Your task to perform on an android device: What's the weather going to be tomorrow? Image 0: 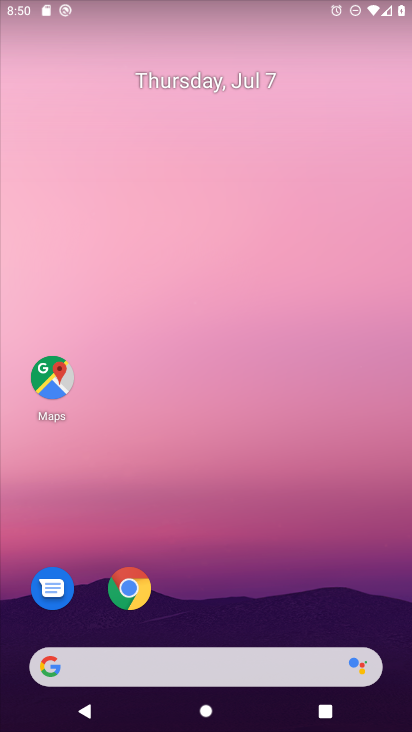
Step 0: drag from (246, 633) to (217, 282)
Your task to perform on an android device: What's the weather going to be tomorrow? Image 1: 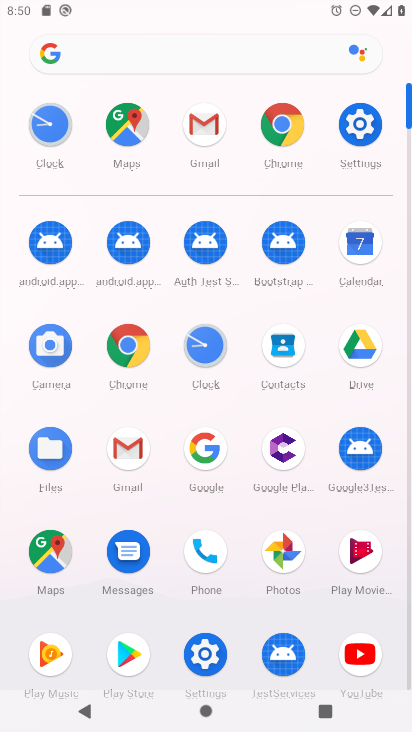
Step 1: click (278, 122)
Your task to perform on an android device: What's the weather going to be tomorrow? Image 2: 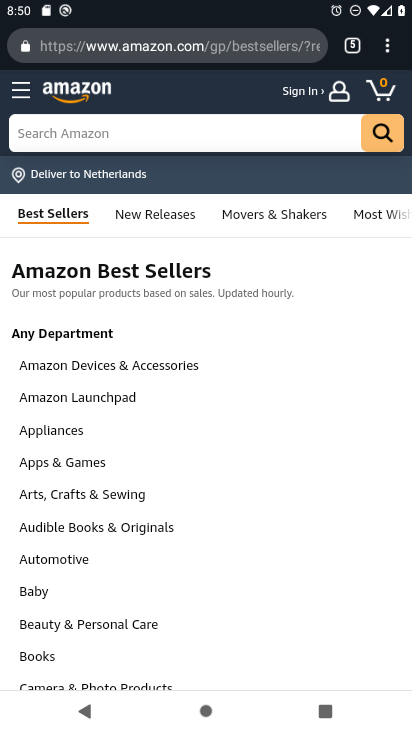
Step 2: click (133, 92)
Your task to perform on an android device: What's the weather going to be tomorrow? Image 3: 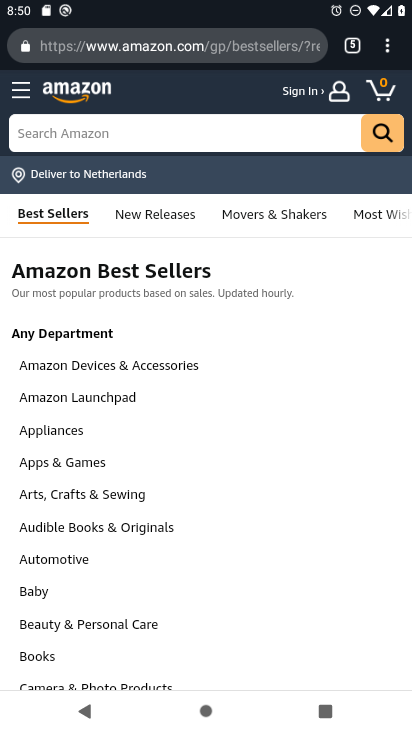
Step 3: click (379, 45)
Your task to perform on an android device: What's the weather going to be tomorrow? Image 4: 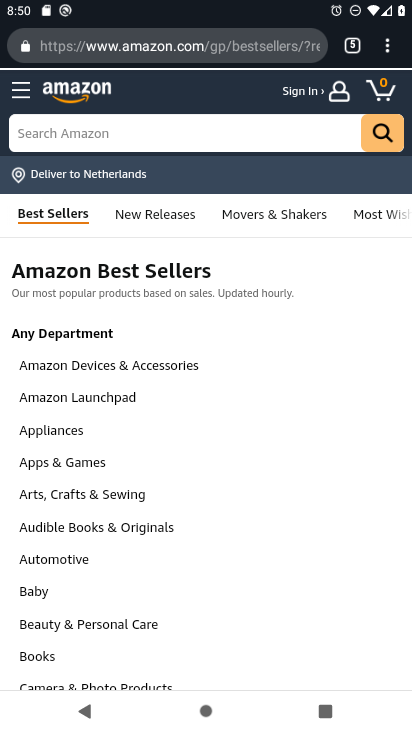
Step 4: click (378, 43)
Your task to perform on an android device: What's the weather going to be tomorrow? Image 5: 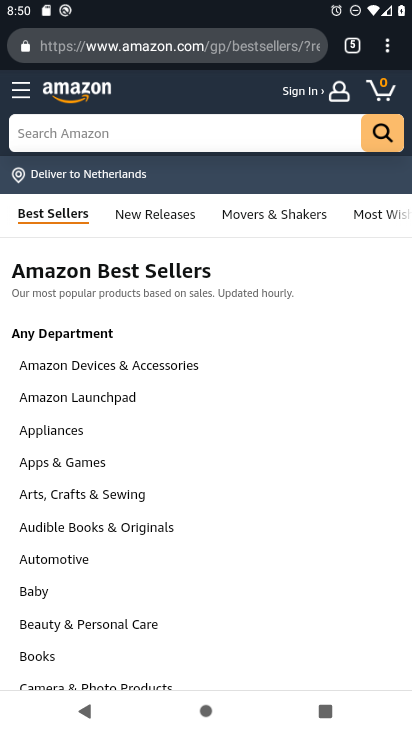
Step 5: click (393, 42)
Your task to perform on an android device: What's the weather going to be tomorrow? Image 6: 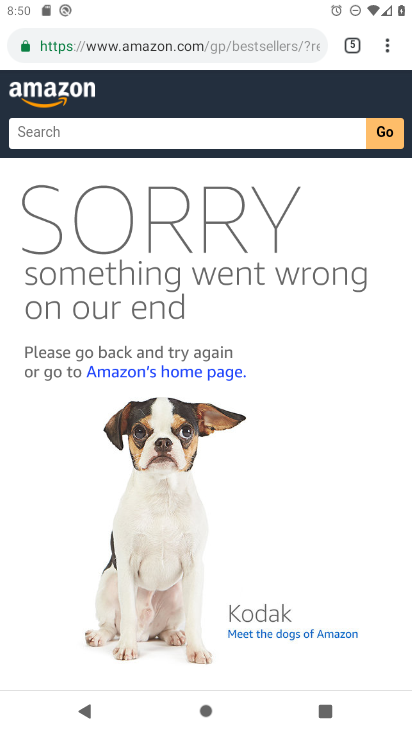
Step 6: click (392, 40)
Your task to perform on an android device: What's the weather going to be tomorrow? Image 7: 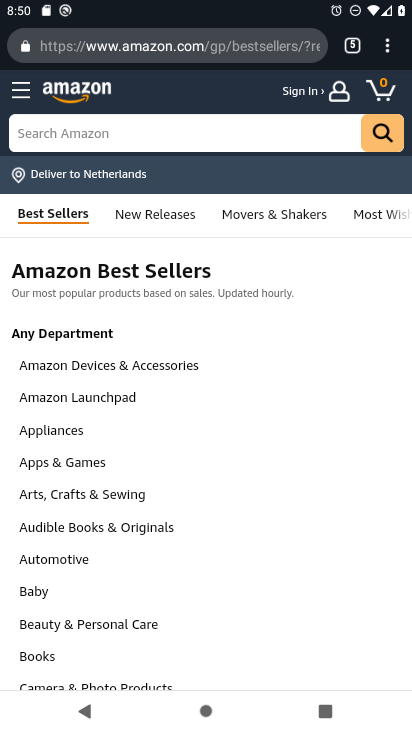
Step 7: click (383, 50)
Your task to perform on an android device: What's the weather going to be tomorrow? Image 8: 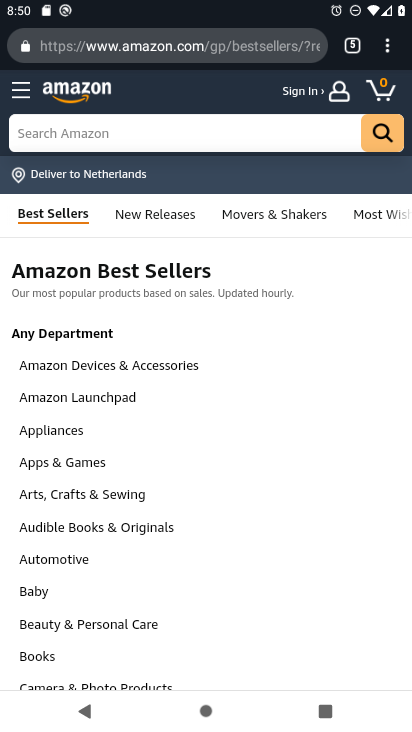
Step 8: click (386, 42)
Your task to perform on an android device: What's the weather going to be tomorrow? Image 9: 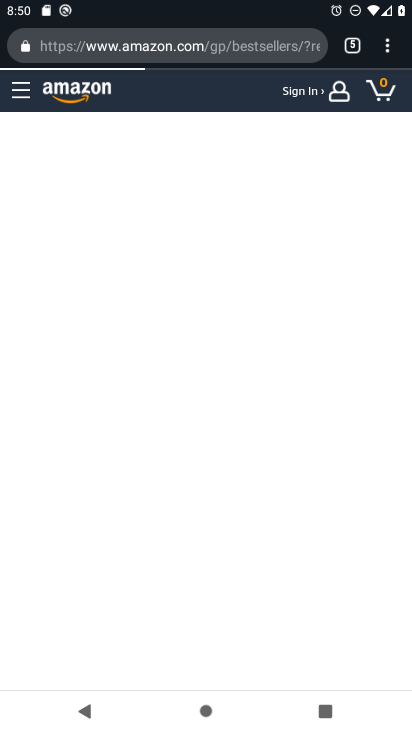
Step 9: click (388, 42)
Your task to perform on an android device: What's the weather going to be tomorrow? Image 10: 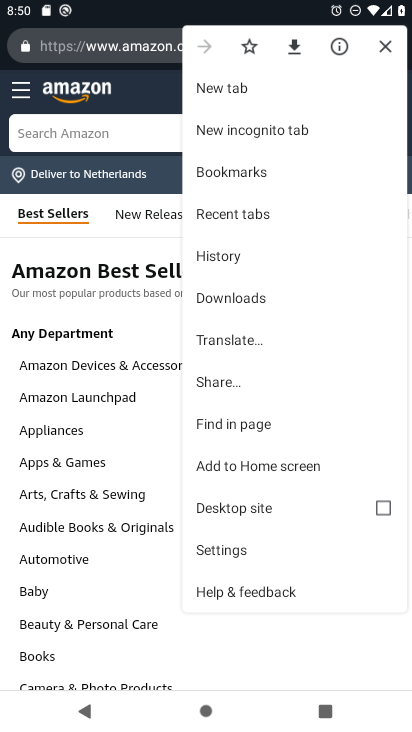
Step 10: click (257, 81)
Your task to perform on an android device: What's the weather going to be tomorrow? Image 11: 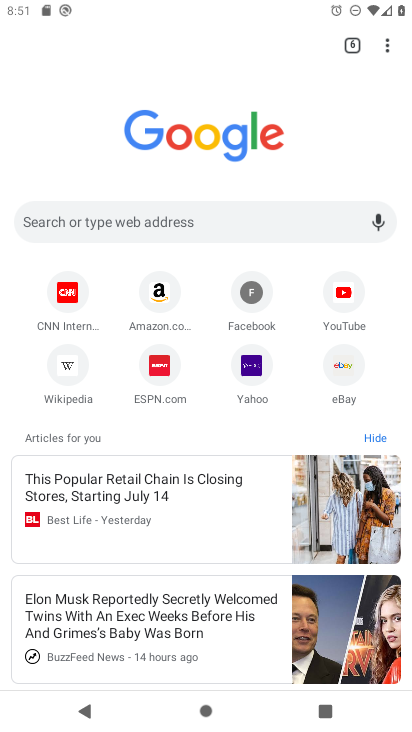
Step 11: click (192, 215)
Your task to perform on an android device: What's the weather going to be tomorrow? Image 12: 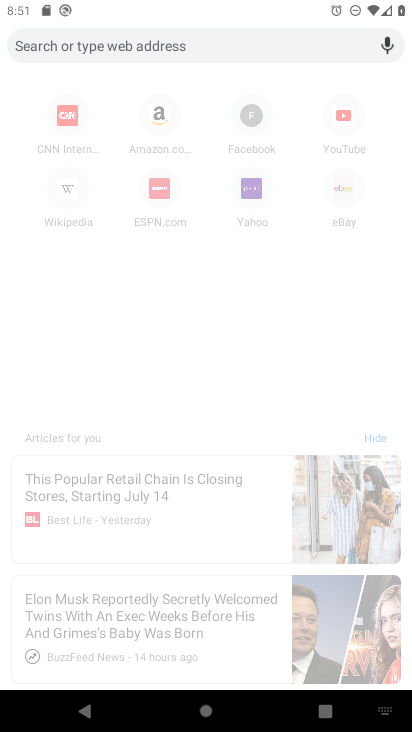
Step 12: type "What's the weather going to be tomorrow "
Your task to perform on an android device: What's the weather going to be tomorrow? Image 13: 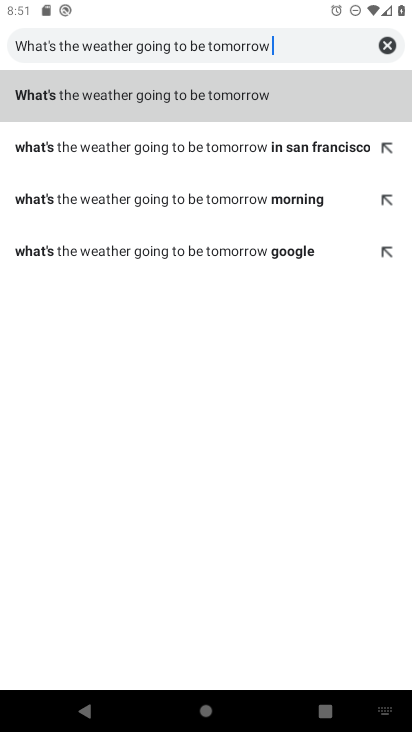
Step 13: click (210, 84)
Your task to perform on an android device: What's the weather going to be tomorrow? Image 14: 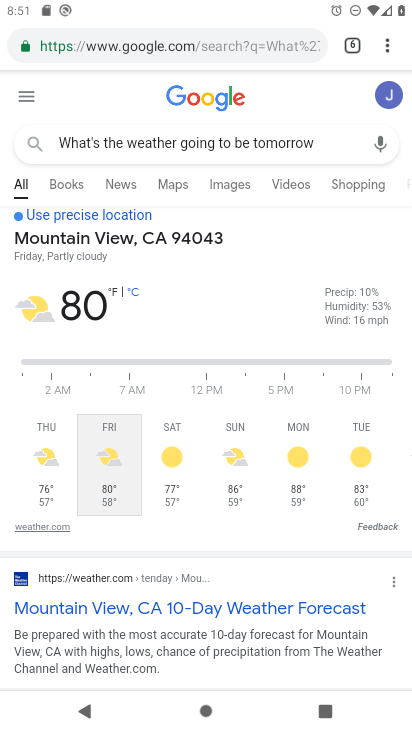
Step 14: task complete